Your task to perform on an android device: change text size in settings app Image 0: 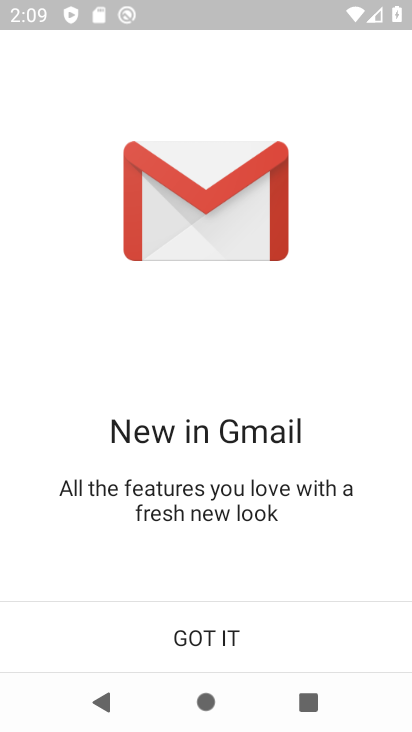
Step 0: click (273, 236)
Your task to perform on an android device: change text size in settings app Image 1: 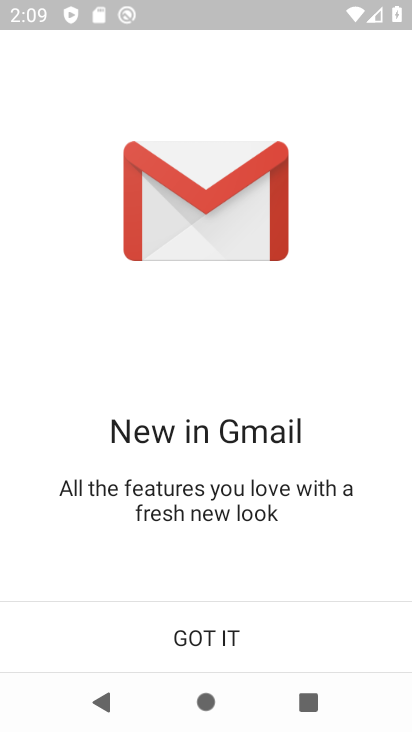
Step 1: click (205, 637)
Your task to perform on an android device: change text size in settings app Image 2: 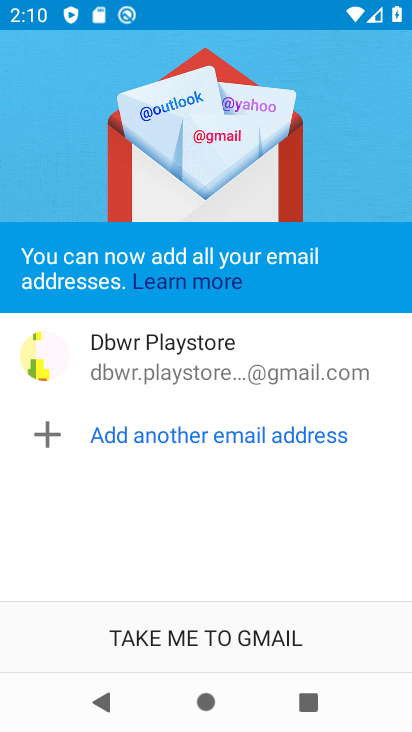
Step 2: press home button
Your task to perform on an android device: change text size in settings app Image 3: 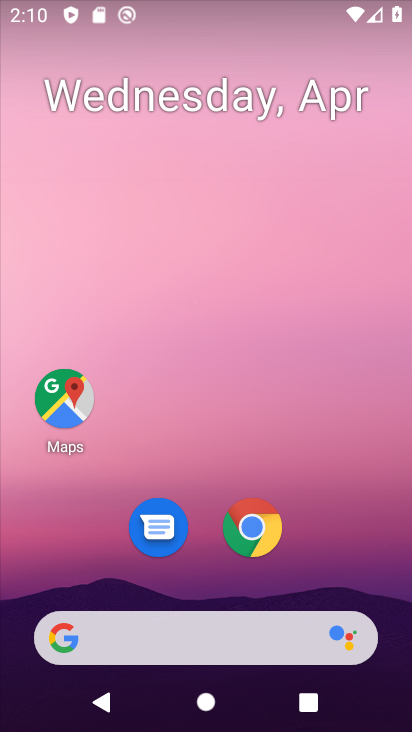
Step 3: drag from (355, 511) to (342, 60)
Your task to perform on an android device: change text size in settings app Image 4: 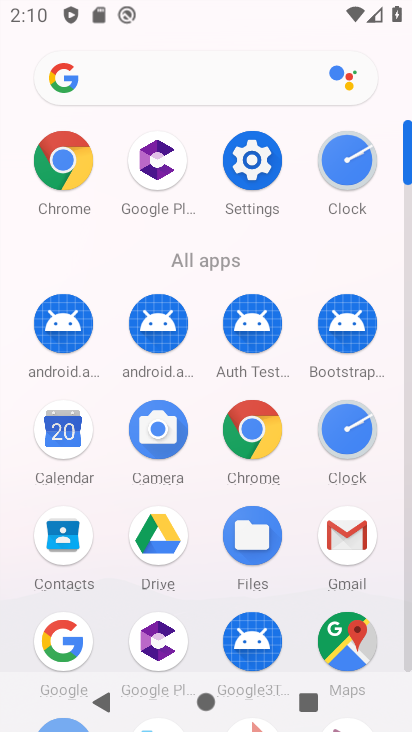
Step 4: click (244, 157)
Your task to perform on an android device: change text size in settings app Image 5: 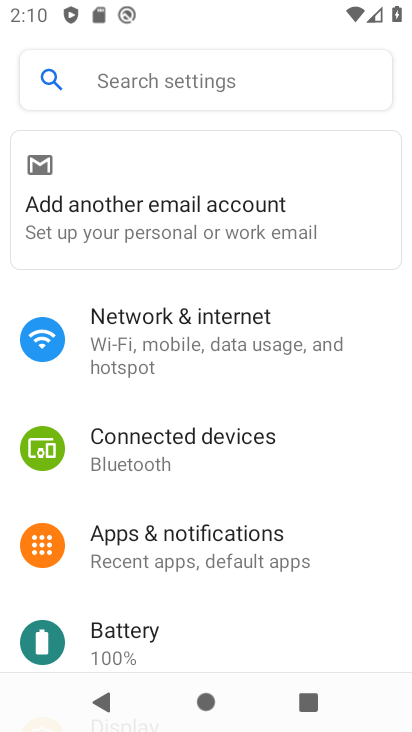
Step 5: drag from (307, 596) to (284, 307)
Your task to perform on an android device: change text size in settings app Image 6: 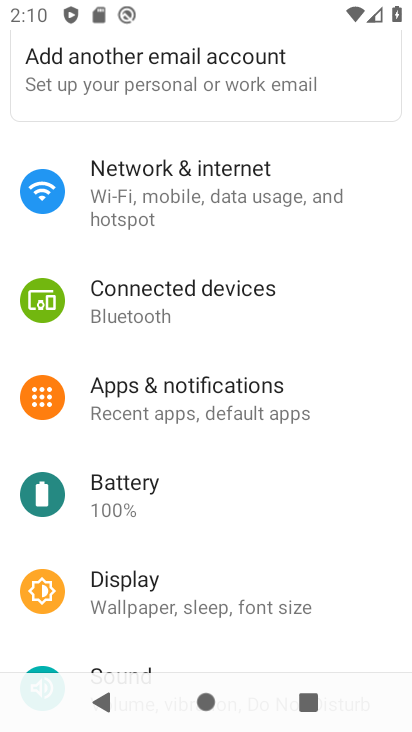
Step 6: drag from (255, 546) to (244, 297)
Your task to perform on an android device: change text size in settings app Image 7: 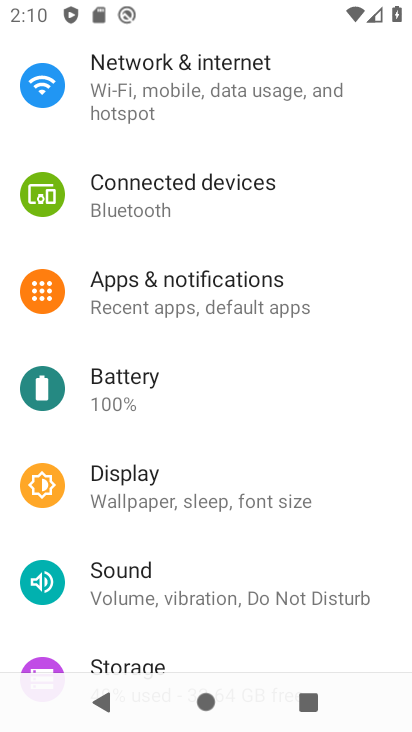
Step 7: click (223, 490)
Your task to perform on an android device: change text size in settings app Image 8: 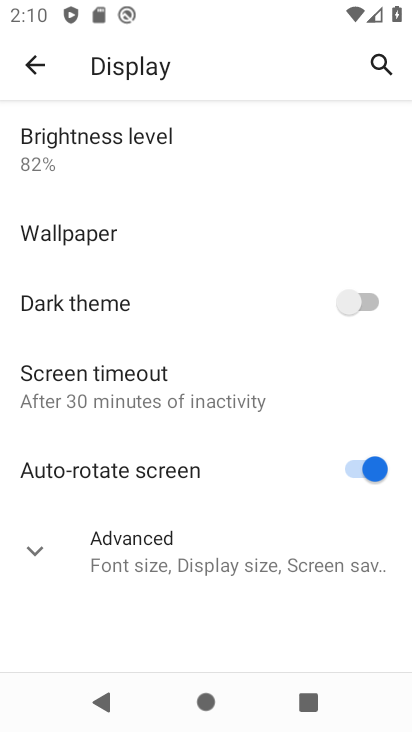
Step 8: click (231, 545)
Your task to perform on an android device: change text size in settings app Image 9: 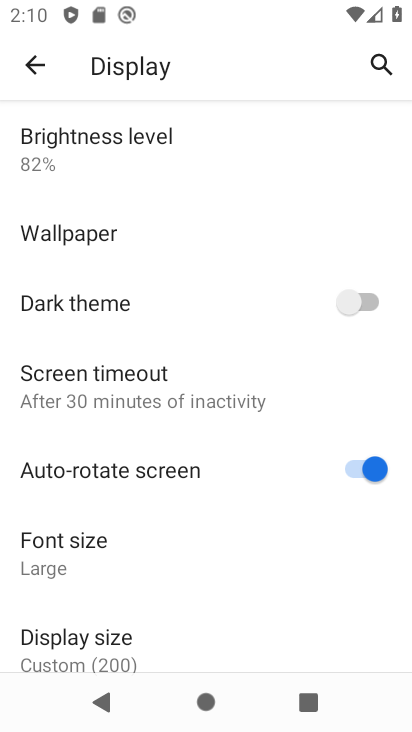
Step 9: click (86, 546)
Your task to perform on an android device: change text size in settings app Image 10: 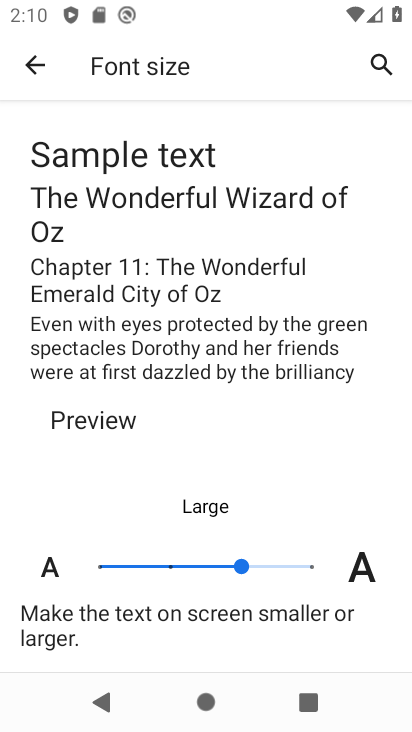
Step 10: click (219, 569)
Your task to perform on an android device: change text size in settings app Image 11: 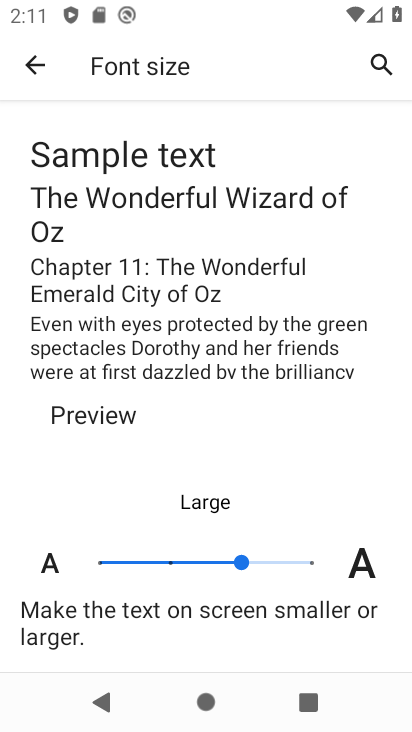
Step 11: click (210, 555)
Your task to perform on an android device: change text size in settings app Image 12: 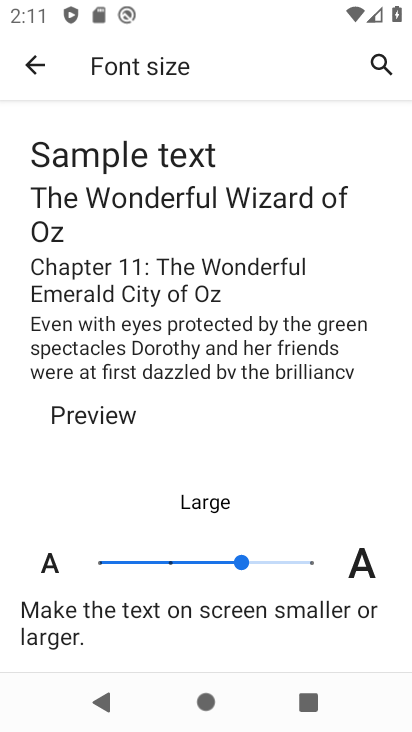
Step 12: click (209, 555)
Your task to perform on an android device: change text size in settings app Image 13: 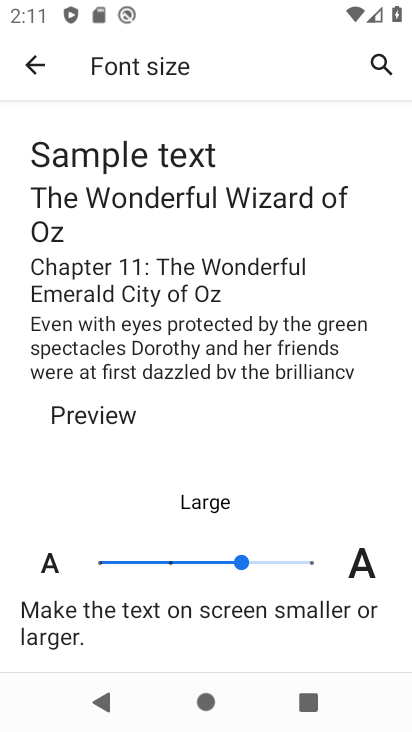
Step 13: task complete